Your task to perform on an android device: Go to Maps Image 0: 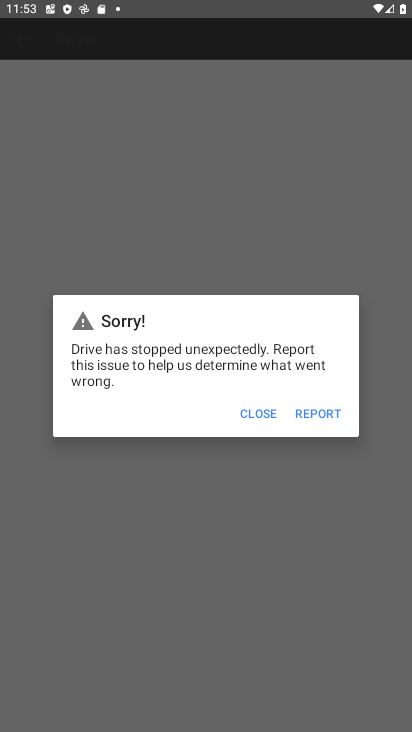
Step 0: press home button
Your task to perform on an android device: Go to Maps Image 1: 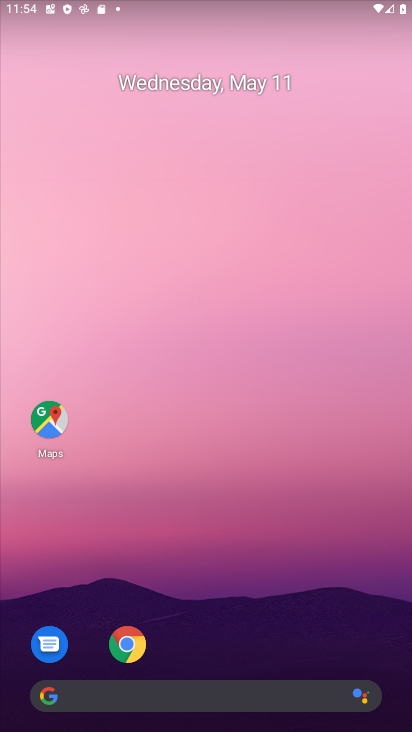
Step 1: click (39, 434)
Your task to perform on an android device: Go to Maps Image 2: 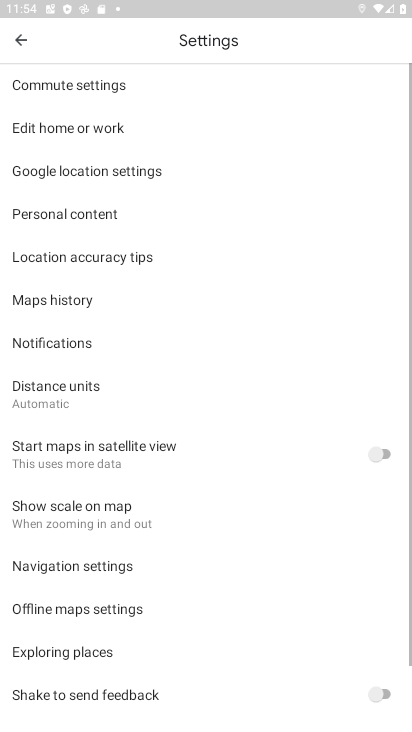
Step 2: task complete